Your task to perform on an android device: Go to Wikipedia Image 0: 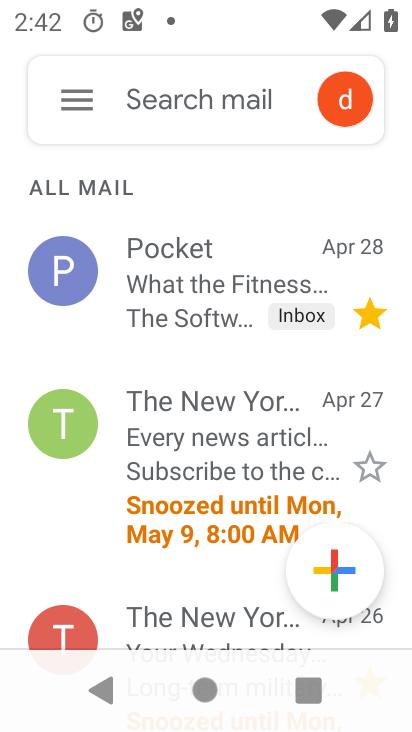
Step 0: press home button
Your task to perform on an android device: Go to Wikipedia Image 1: 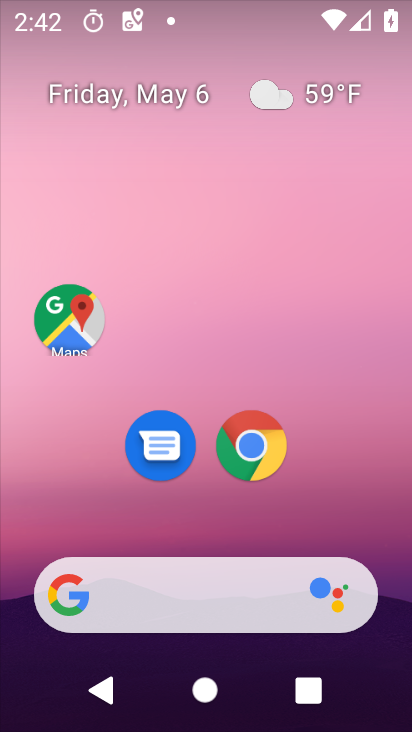
Step 1: drag from (307, 461) to (215, 102)
Your task to perform on an android device: Go to Wikipedia Image 2: 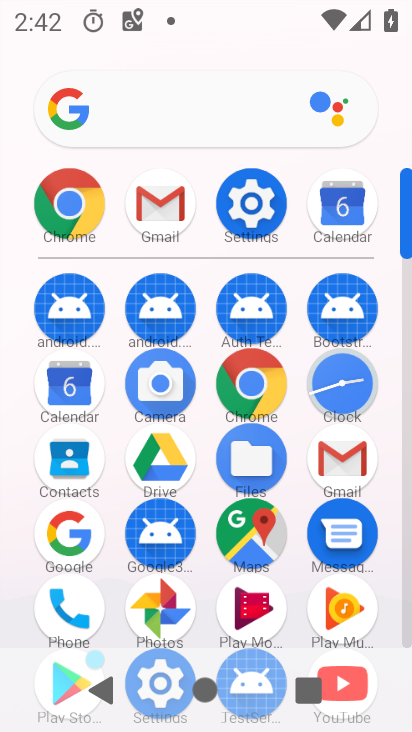
Step 2: click (79, 211)
Your task to perform on an android device: Go to Wikipedia Image 3: 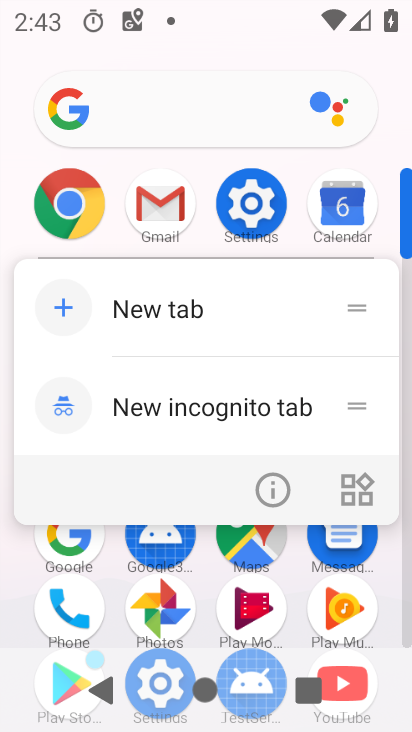
Step 3: click (127, 302)
Your task to perform on an android device: Go to Wikipedia Image 4: 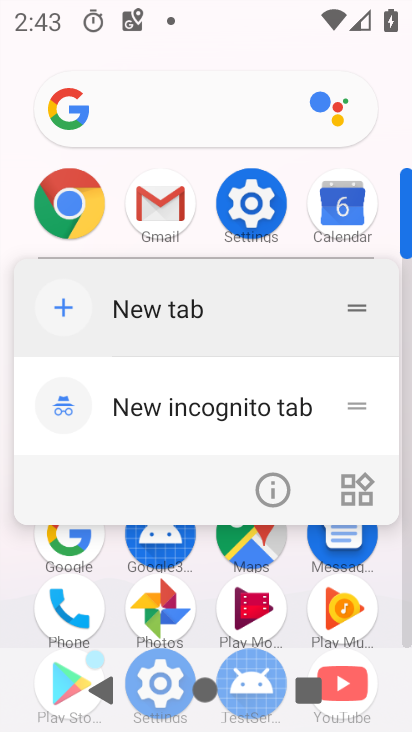
Step 4: drag from (127, 302) to (140, 334)
Your task to perform on an android device: Go to Wikipedia Image 5: 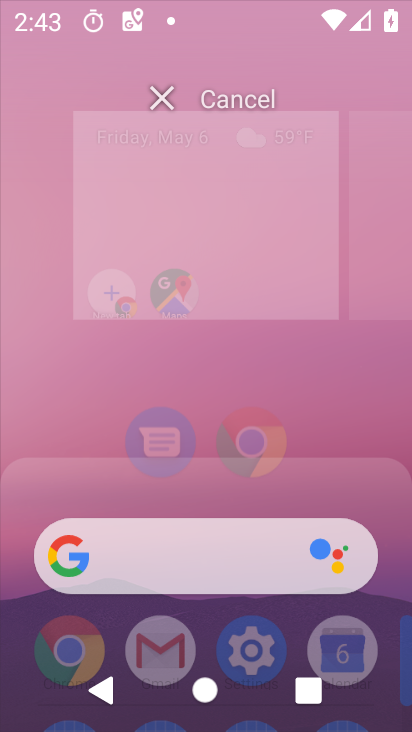
Step 5: click (129, 312)
Your task to perform on an android device: Go to Wikipedia Image 6: 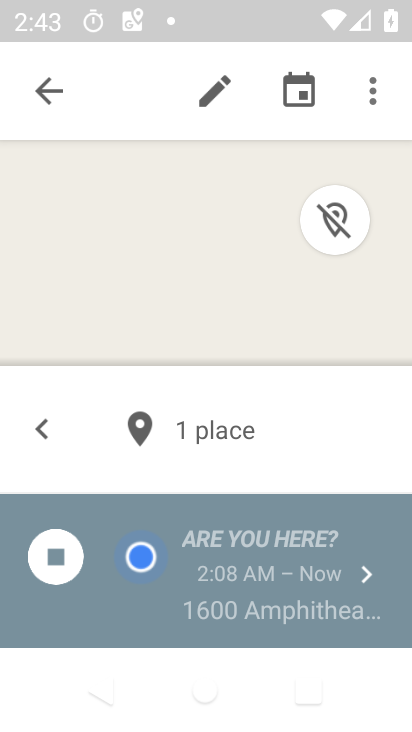
Step 6: press home button
Your task to perform on an android device: Go to Wikipedia Image 7: 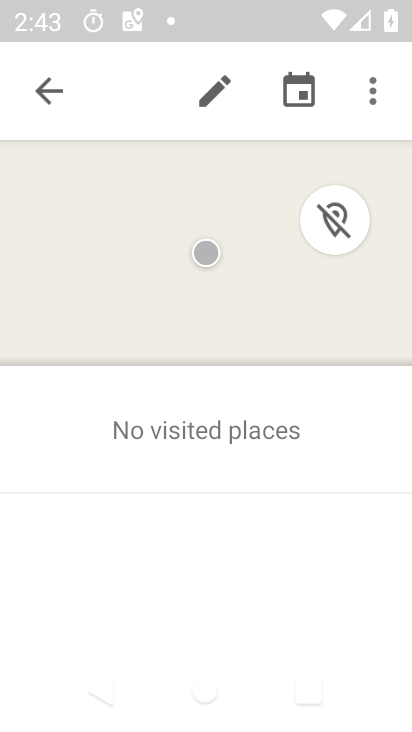
Step 7: press home button
Your task to perform on an android device: Go to Wikipedia Image 8: 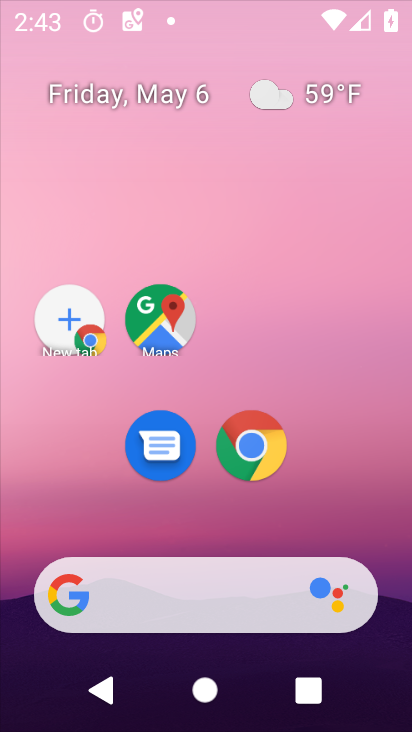
Step 8: press home button
Your task to perform on an android device: Go to Wikipedia Image 9: 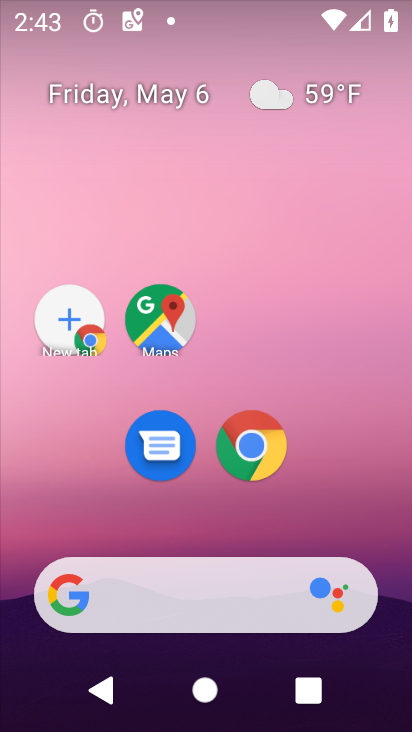
Step 9: press home button
Your task to perform on an android device: Go to Wikipedia Image 10: 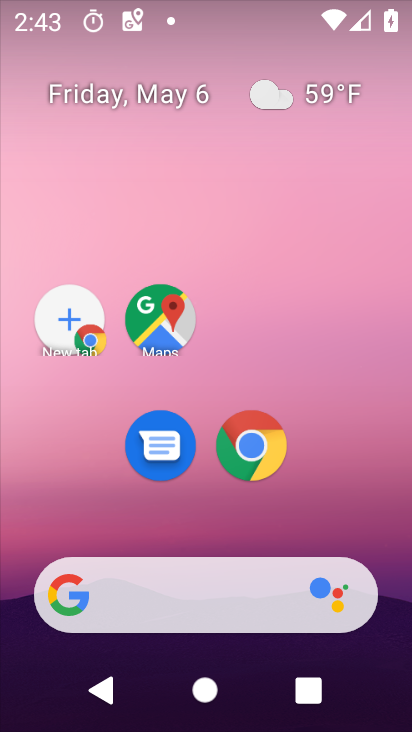
Step 10: click (250, 440)
Your task to perform on an android device: Go to Wikipedia Image 11: 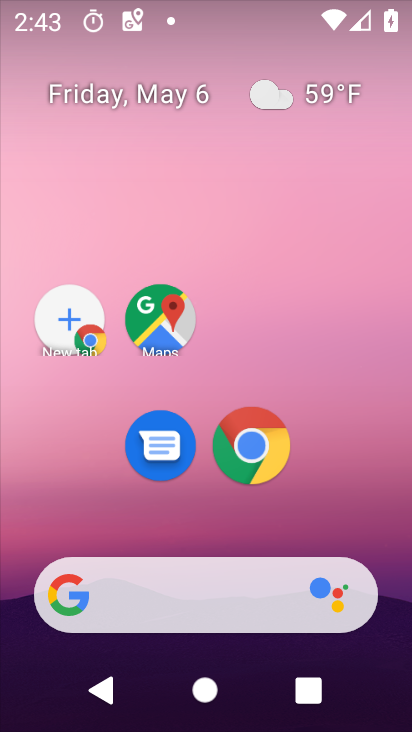
Step 11: click (250, 440)
Your task to perform on an android device: Go to Wikipedia Image 12: 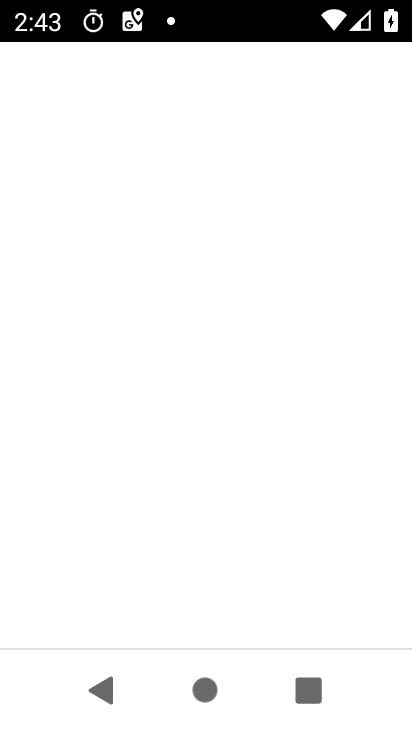
Step 12: click (250, 440)
Your task to perform on an android device: Go to Wikipedia Image 13: 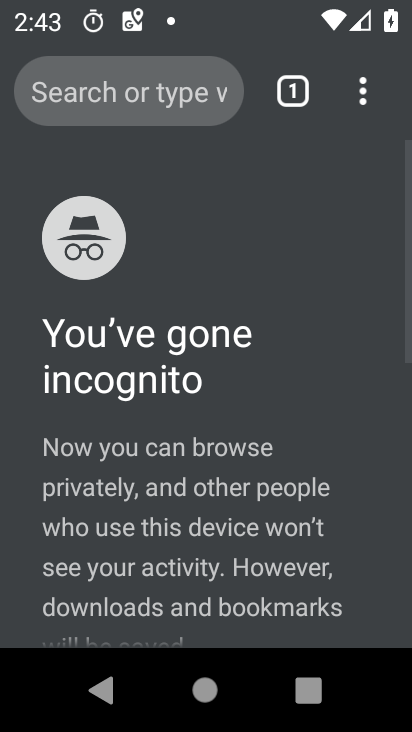
Step 13: click (250, 440)
Your task to perform on an android device: Go to Wikipedia Image 14: 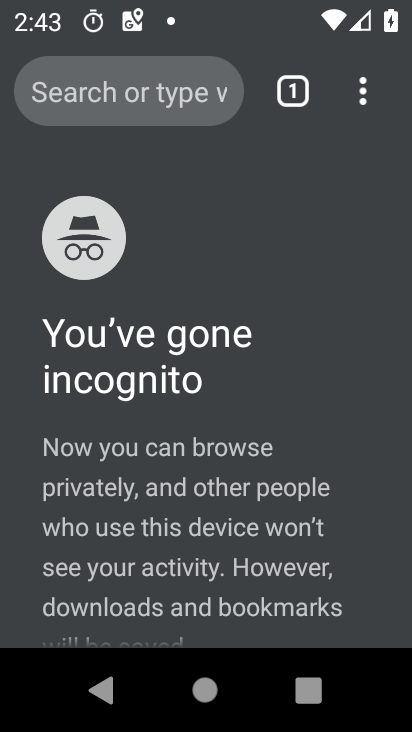
Step 14: drag from (362, 100) to (137, 457)
Your task to perform on an android device: Go to Wikipedia Image 15: 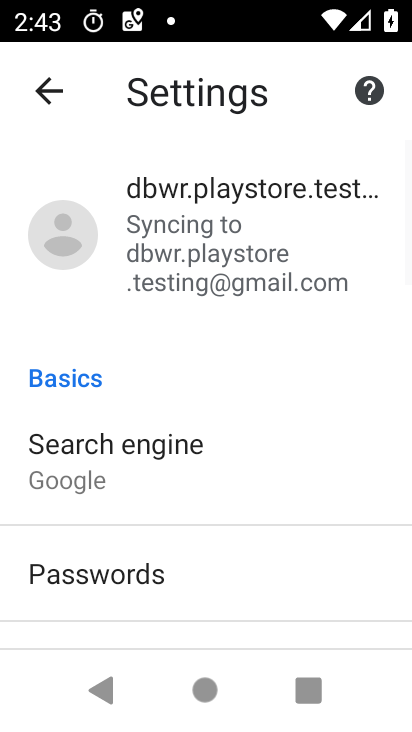
Step 15: click (52, 89)
Your task to perform on an android device: Go to Wikipedia Image 16: 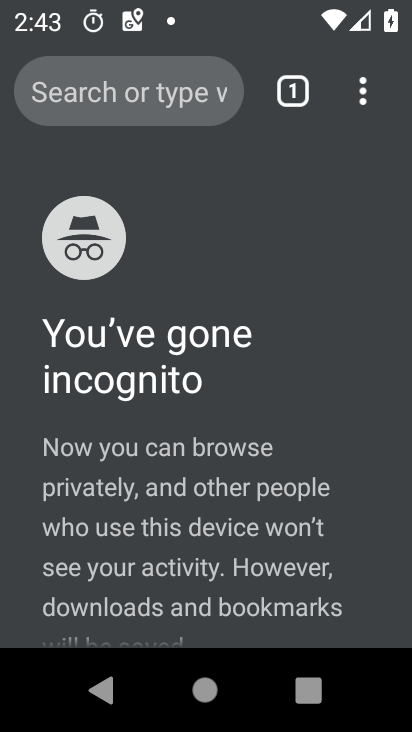
Step 16: click (357, 91)
Your task to perform on an android device: Go to Wikipedia Image 17: 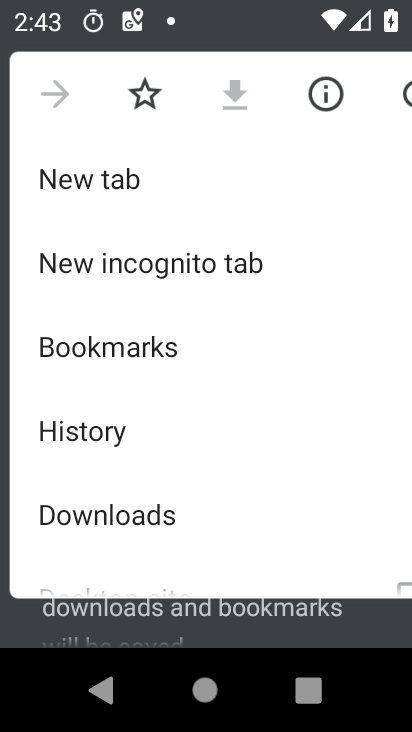
Step 17: click (108, 177)
Your task to perform on an android device: Go to Wikipedia Image 18: 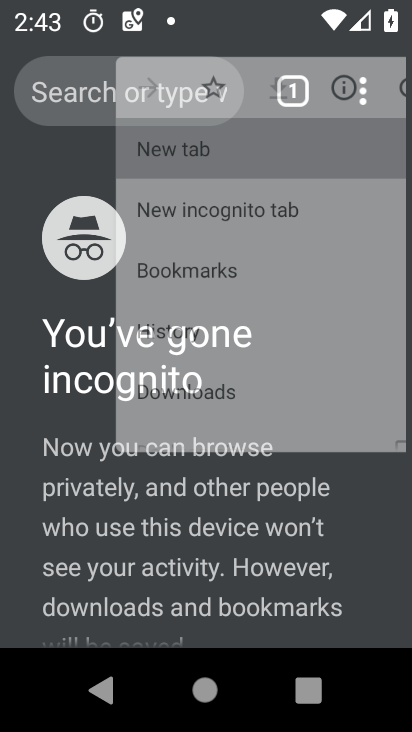
Step 18: click (108, 177)
Your task to perform on an android device: Go to Wikipedia Image 19: 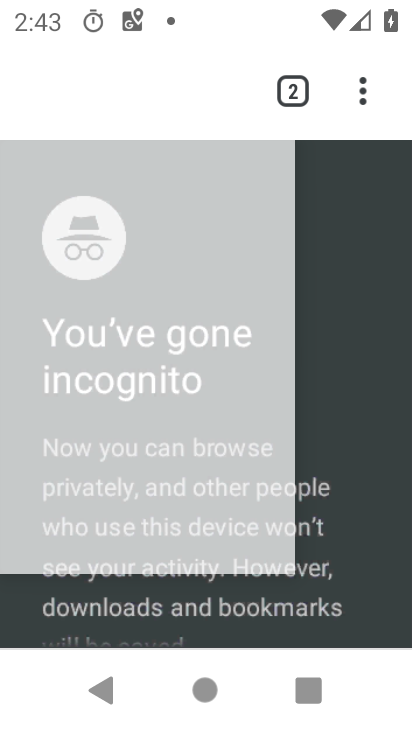
Step 19: click (108, 177)
Your task to perform on an android device: Go to Wikipedia Image 20: 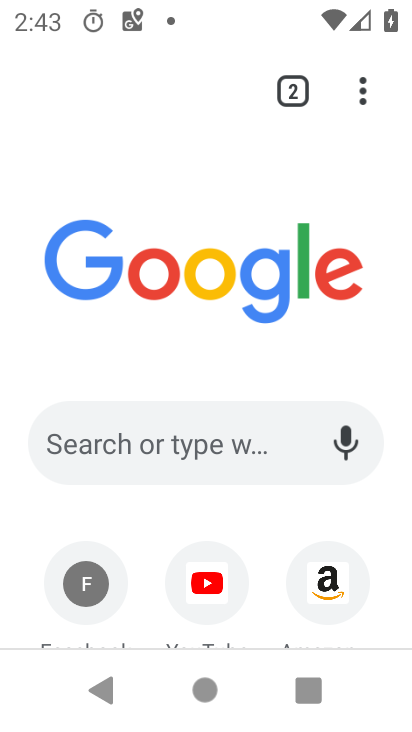
Step 20: drag from (281, 576) to (171, 89)
Your task to perform on an android device: Go to Wikipedia Image 21: 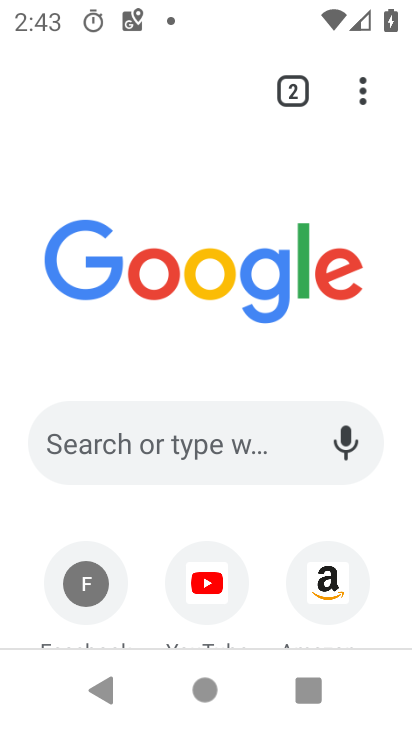
Step 21: drag from (273, 453) to (224, 80)
Your task to perform on an android device: Go to Wikipedia Image 22: 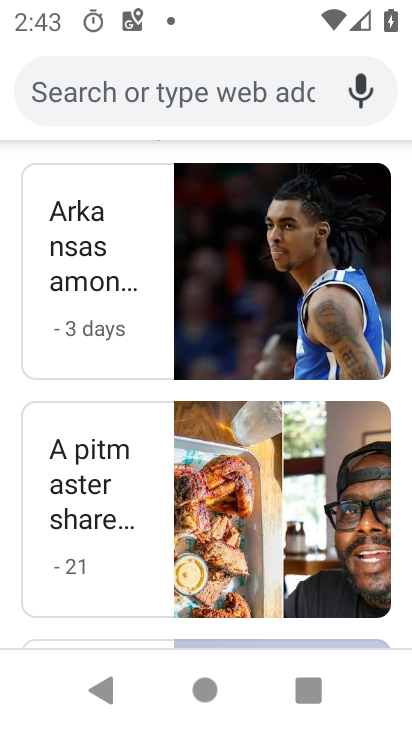
Step 22: drag from (269, 426) to (260, 160)
Your task to perform on an android device: Go to Wikipedia Image 23: 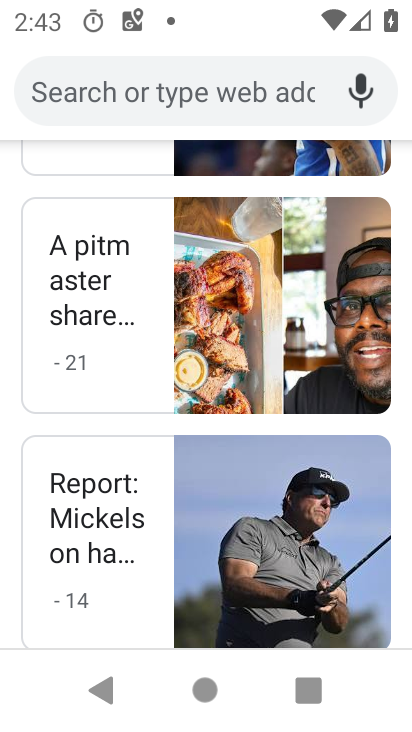
Step 23: drag from (215, 201) to (217, 624)
Your task to perform on an android device: Go to Wikipedia Image 24: 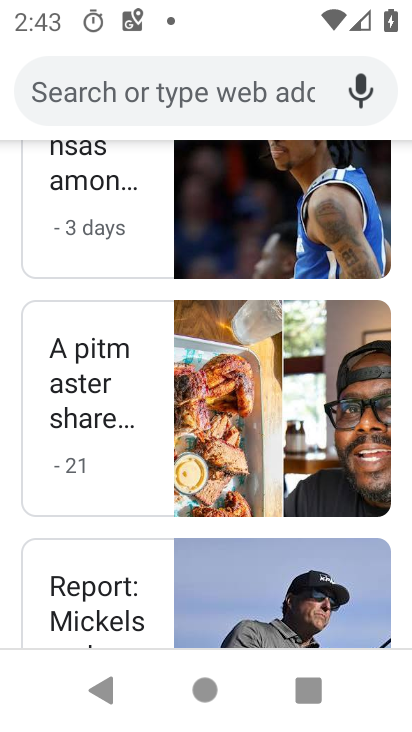
Step 24: drag from (218, 275) to (268, 554)
Your task to perform on an android device: Go to Wikipedia Image 25: 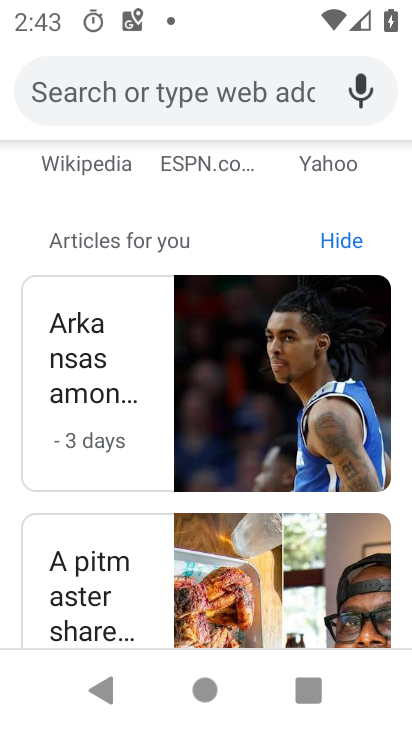
Step 25: drag from (267, 238) to (300, 557)
Your task to perform on an android device: Go to Wikipedia Image 26: 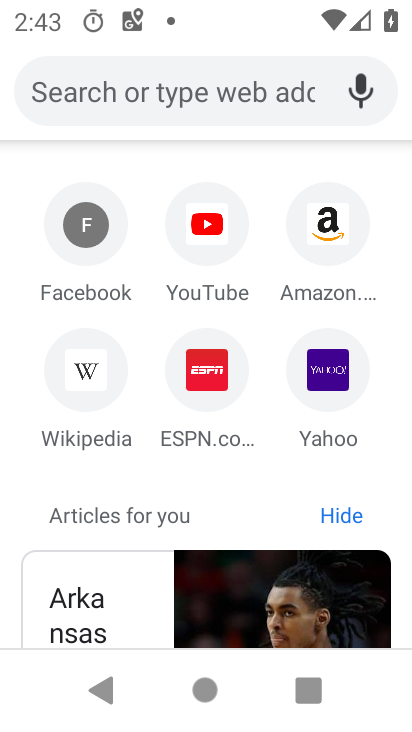
Step 26: drag from (238, 293) to (263, 569)
Your task to perform on an android device: Go to Wikipedia Image 27: 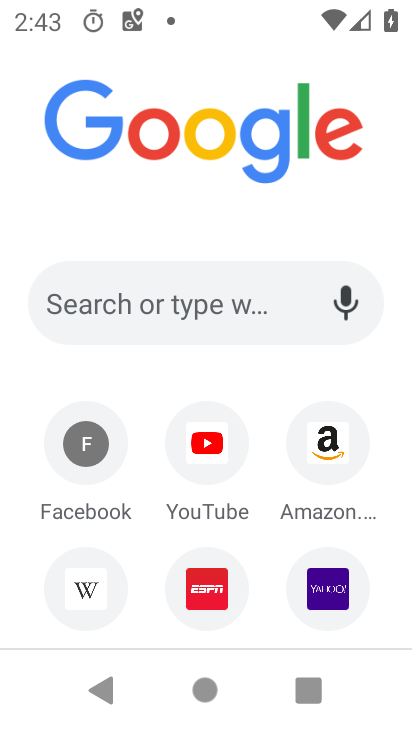
Step 27: drag from (202, 254) to (264, 663)
Your task to perform on an android device: Go to Wikipedia Image 28: 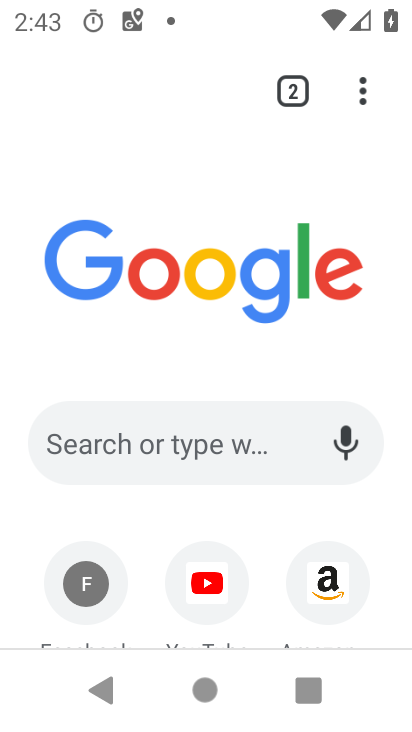
Step 28: type "wikipedia"
Your task to perform on an android device: Go to Wikipedia Image 29: 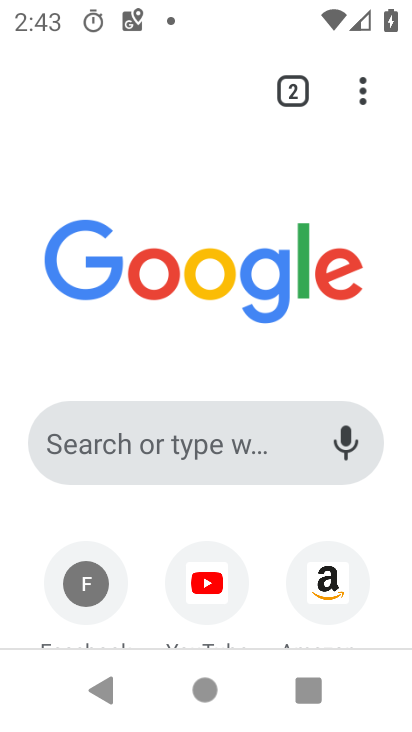
Step 29: click (119, 447)
Your task to perform on an android device: Go to Wikipedia Image 30: 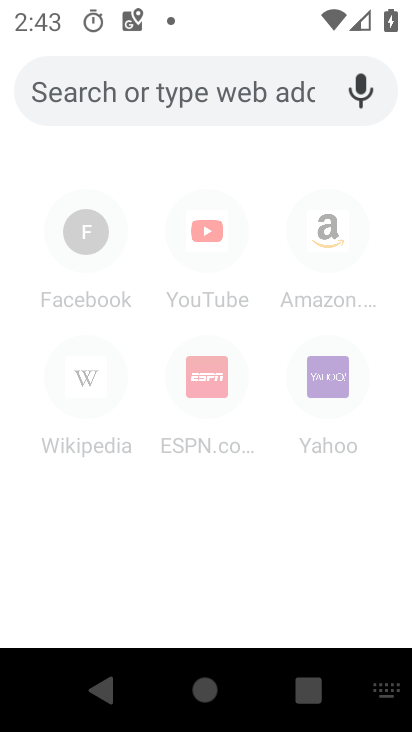
Step 30: click (62, 443)
Your task to perform on an android device: Go to Wikipedia Image 31: 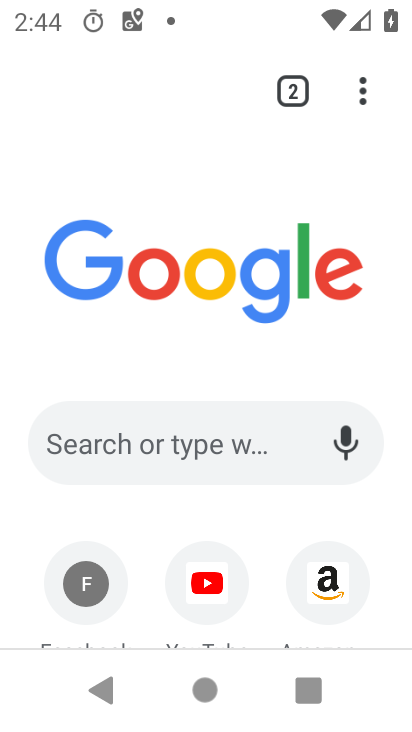
Step 31: click (53, 441)
Your task to perform on an android device: Go to Wikipedia Image 32: 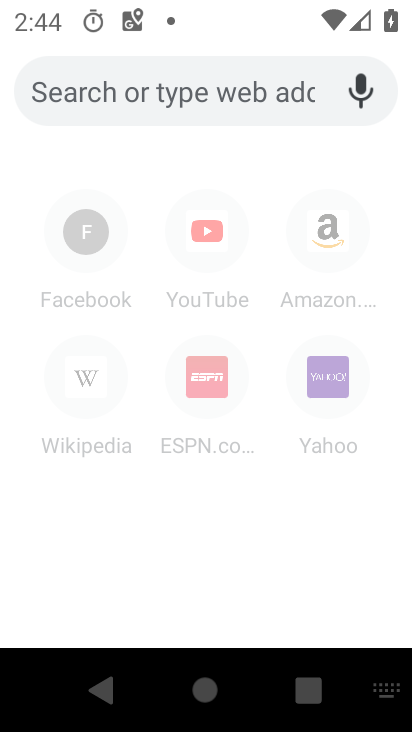
Step 32: type "wilipedia"
Your task to perform on an android device: Go to Wikipedia Image 33: 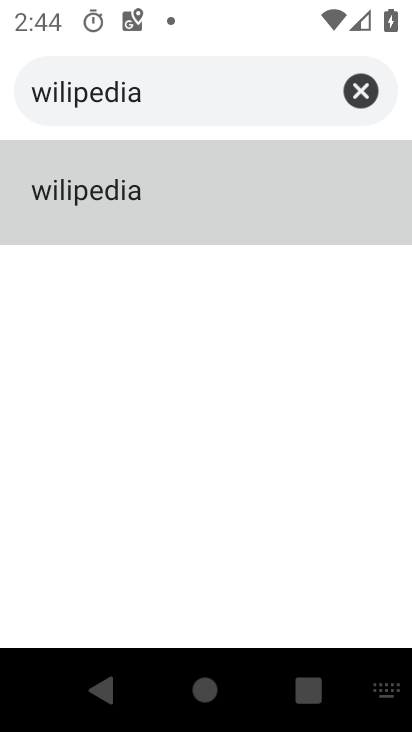
Step 33: click (114, 203)
Your task to perform on an android device: Go to Wikipedia Image 34: 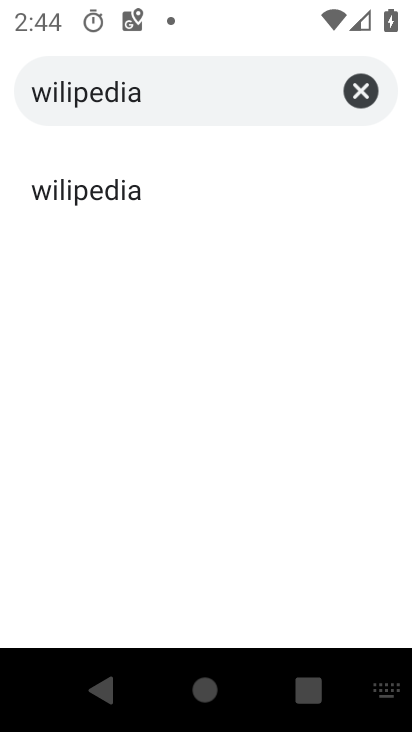
Step 34: click (361, 90)
Your task to perform on an android device: Go to Wikipedia Image 35: 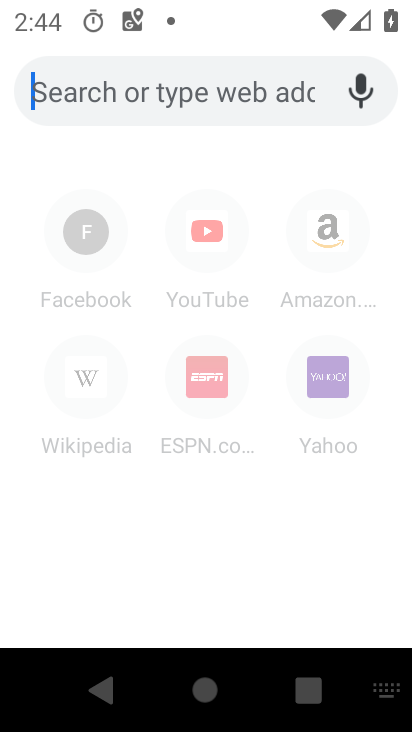
Step 35: type "wikipedia"
Your task to perform on an android device: Go to Wikipedia Image 36: 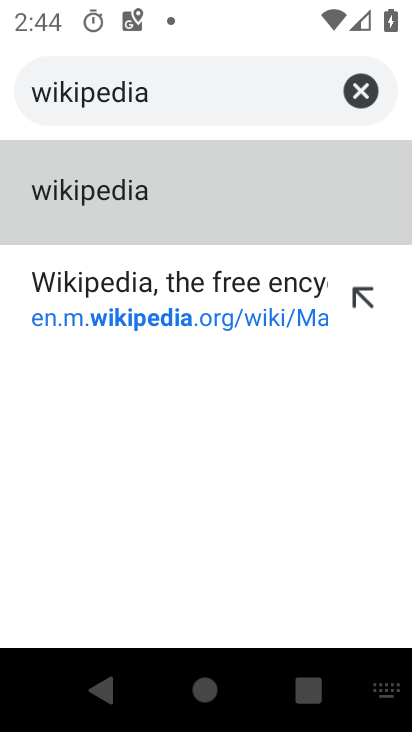
Step 36: click (147, 317)
Your task to perform on an android device: Go to Wikipedia Image 37: 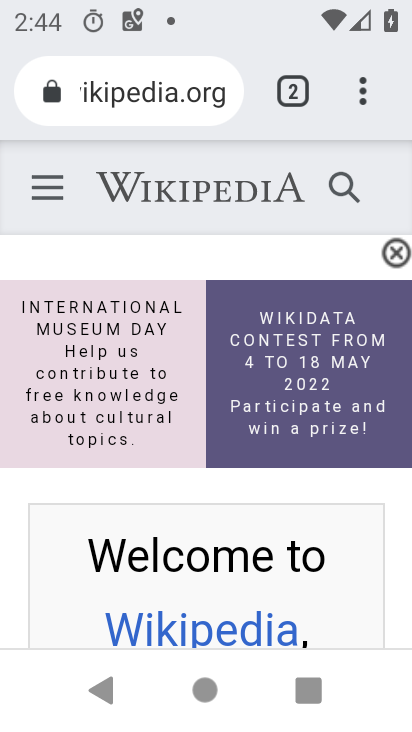
Step 37: task complete